Your task to perform on an android device: Open calendar and show me the third week of next month Image 0: 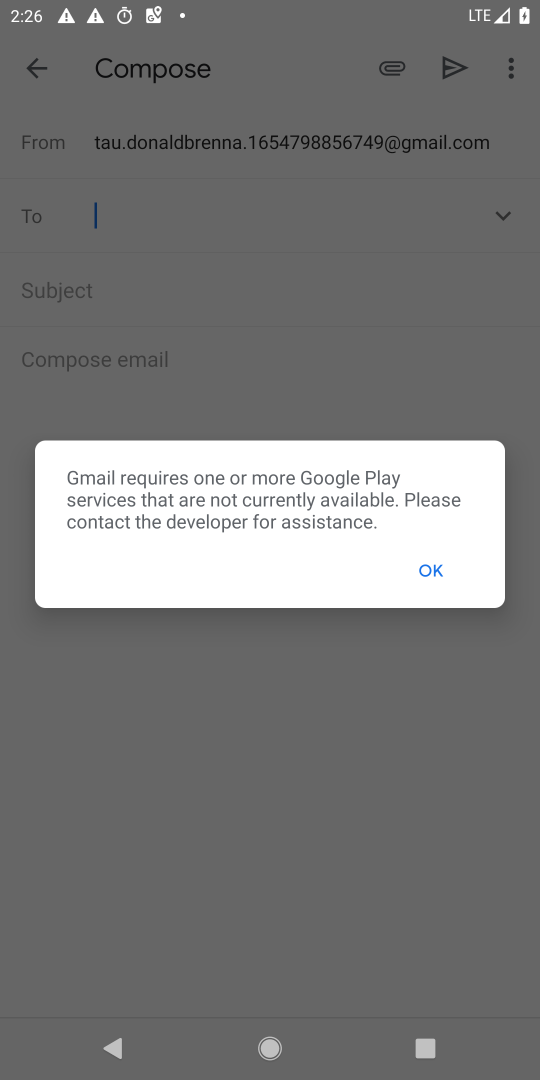
Step 0: press home button
Your task to perform on an android device: Open calendar and show me the third week of next month Image 1: 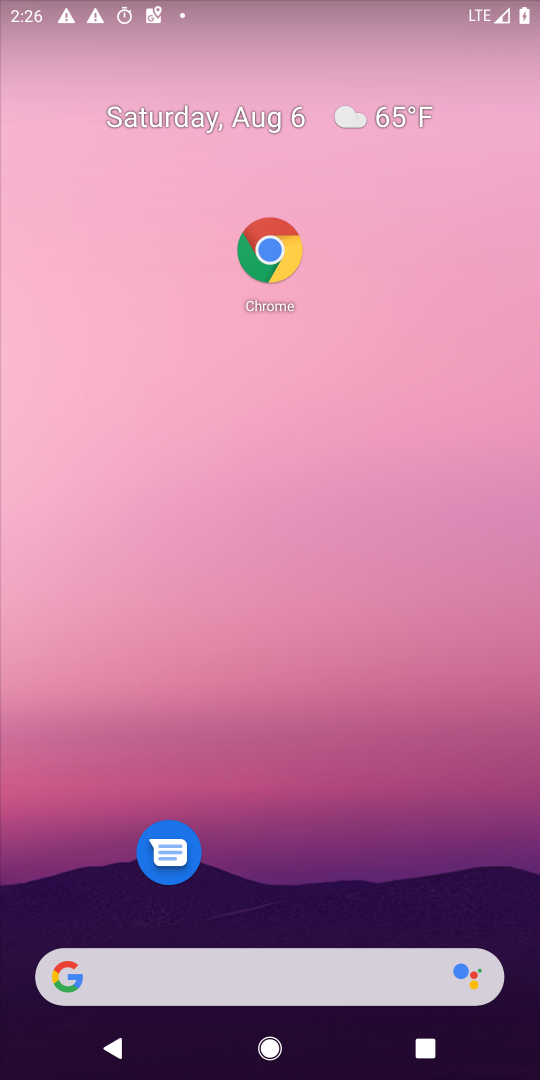
Step 1: drag from (355, 979) to (456, 288)
Your task to perform on an android device: Open calendar and show me the third week of next month Image 2: 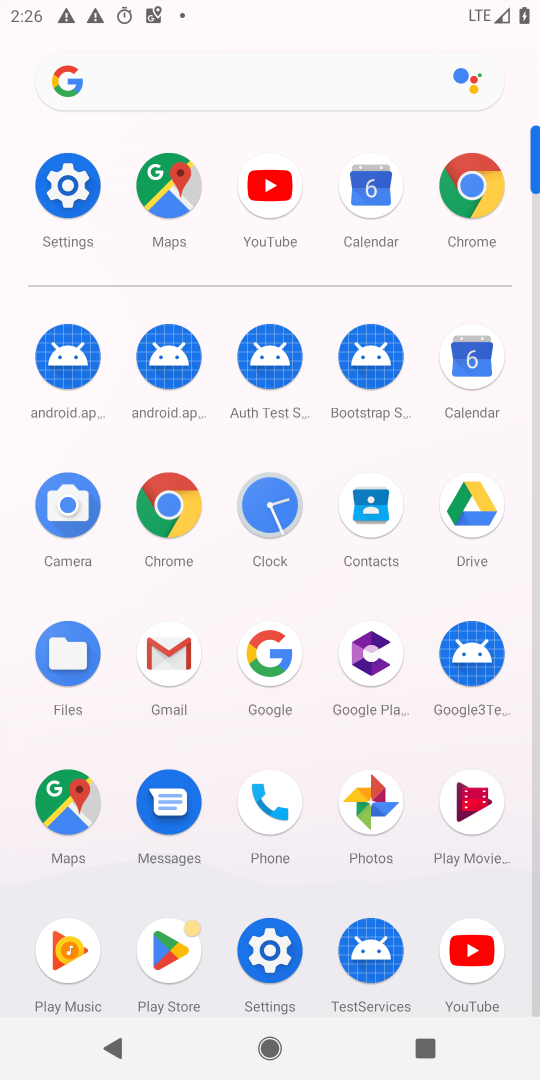
Step 2: click (468, 387)
Your task to perform on an android device: Open calendar and show me the third week of next month Image 3: 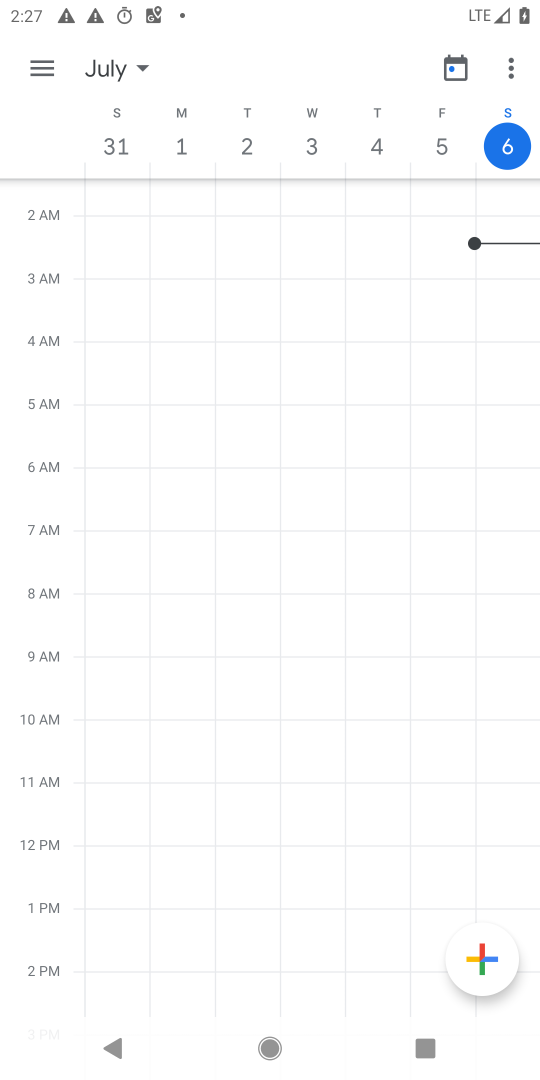
Step 3: click (43, 72)
Your task to perform on an android device: Open calendar and show me the third week of next month Image 4: 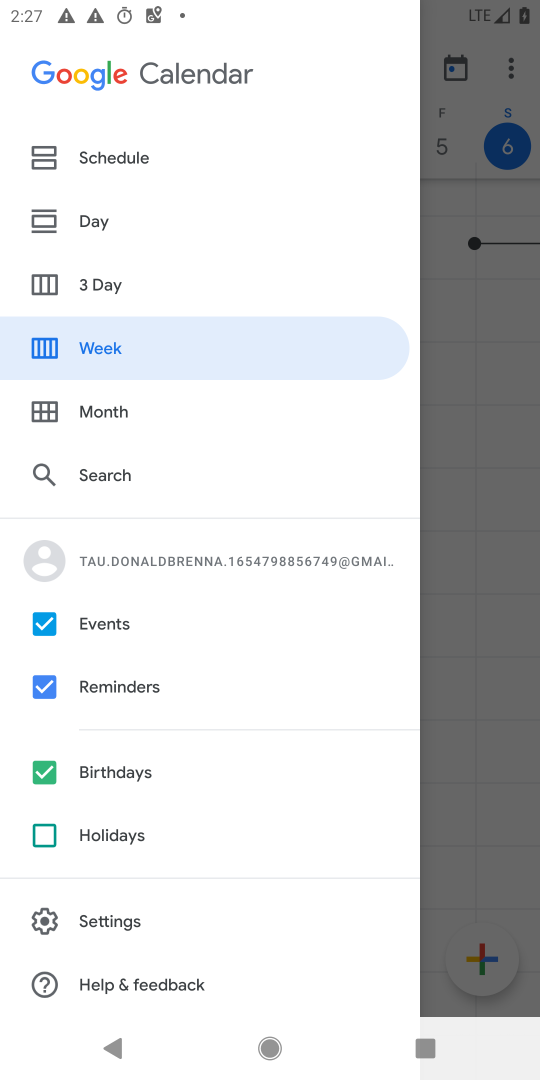
Step 4: click (132, 423)
Your task to perform on an android device: Open calendar and show me the third week of next month Image 5: 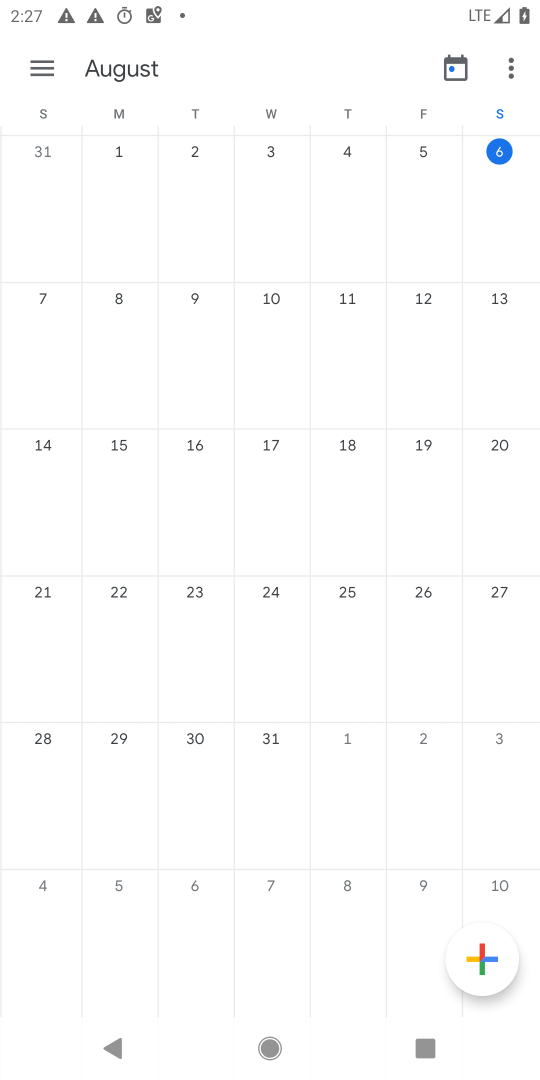
Step 5: drag from (418, 581) to (1, 500)
Your task to perform on an android device: Open calendar and show me the third week of next month Image 6: 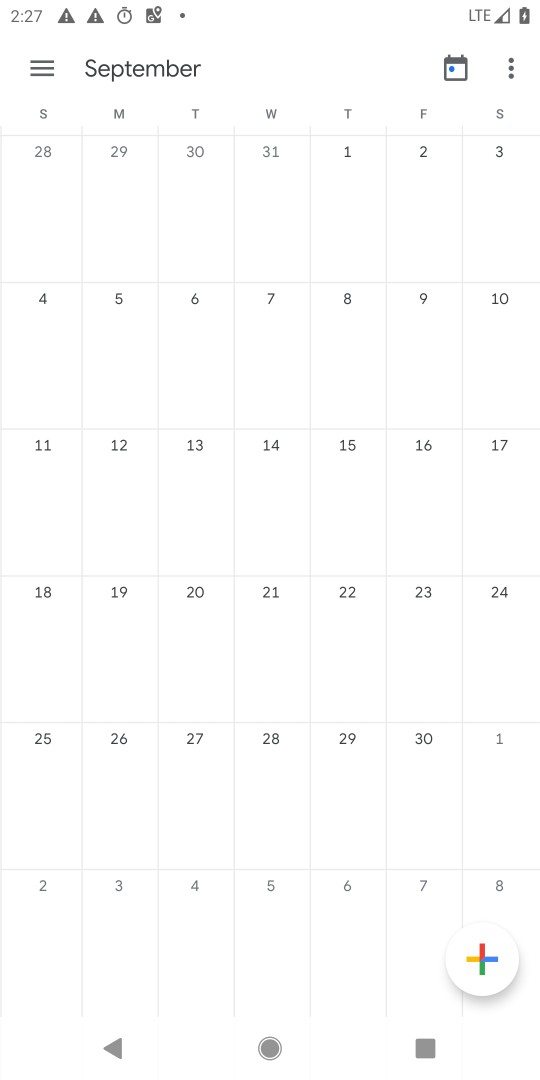
Step 6: click (131, 626)
Your task to perform on an android device: Open calendar and show me the third week of next month Image 7: 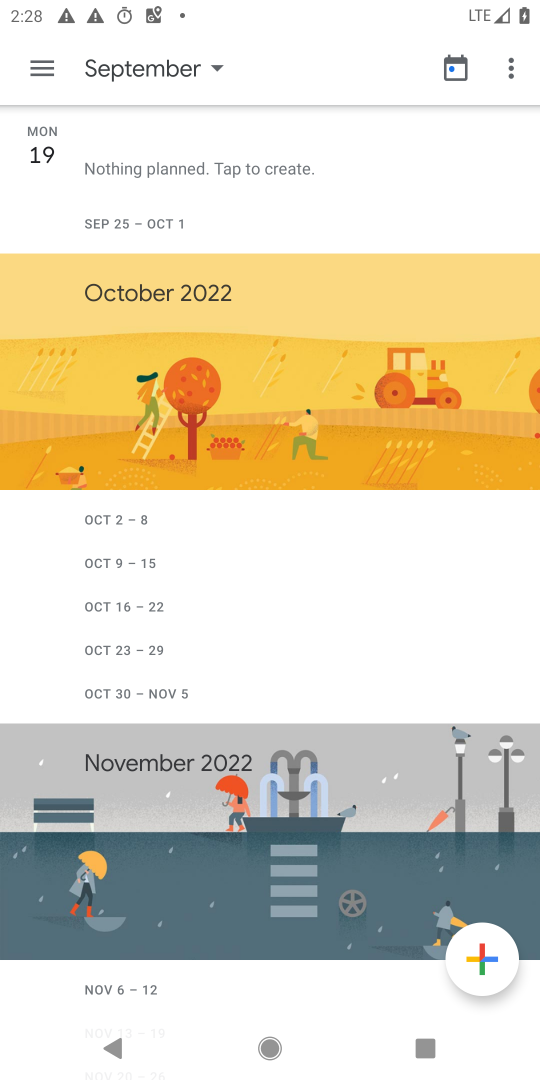
Step 7: task complete